Your task to perform on an android device: visit the assistant section in the google photos Image 0: 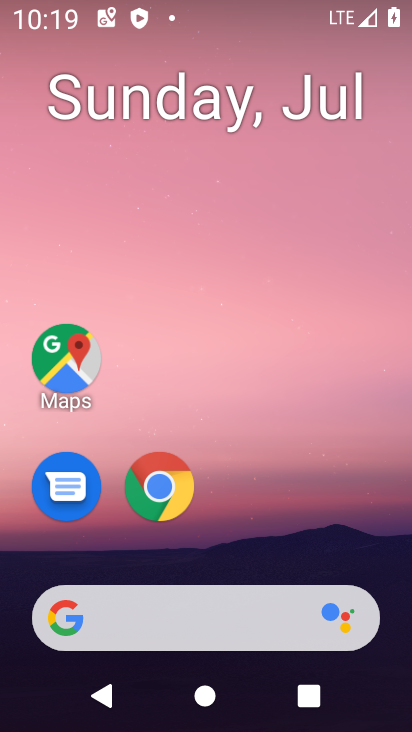
Step 0: press home button
Your task to perform on an android device: visit the assistant section in the google photos Image 1: 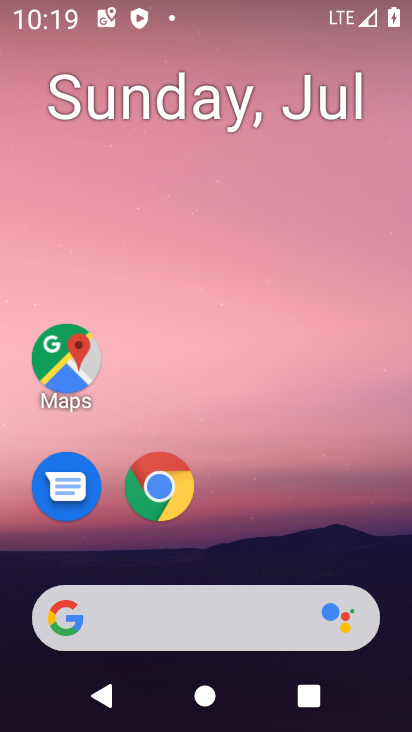
Step 1: drag from (359, 544) to (369, 84)
Your task to perform on an android device: visit the assistant section in the google photos Image 2: 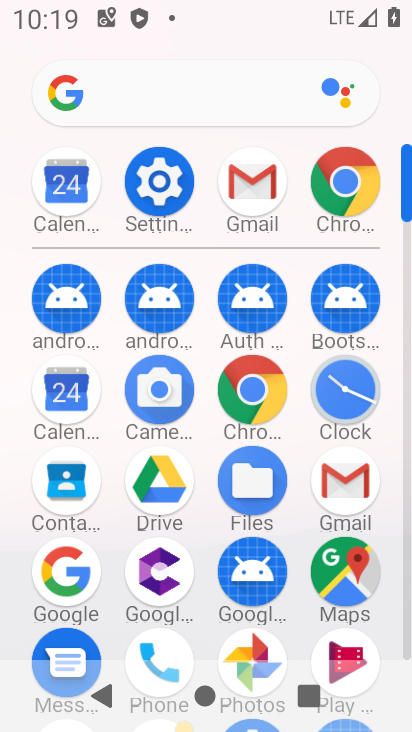
Step 2: drag from (404, 552) to (404, 417)
Your task to perform on an android device: visit the assistant section in the google photos Image 3: 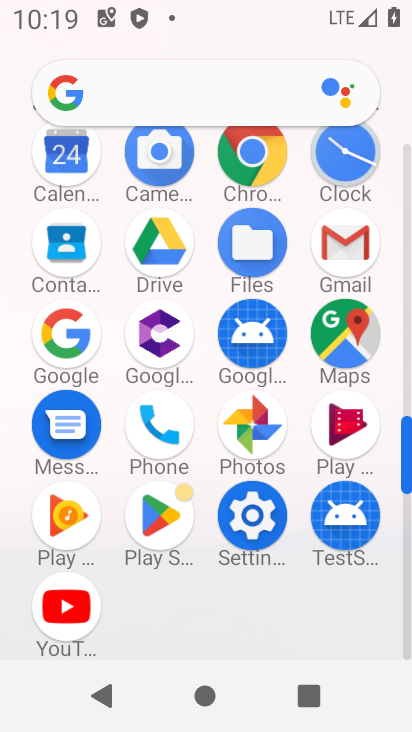
Step 3: click (255, 426)
Your task to perform on an android device: visit the assistant section in the google photos Image 4: 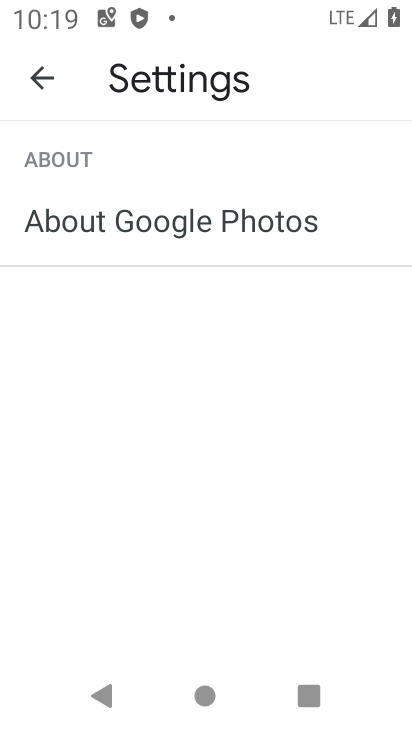
Step 4: press back button
Your task to perform on an android device: visit the assistant section in the google photos Image 5: 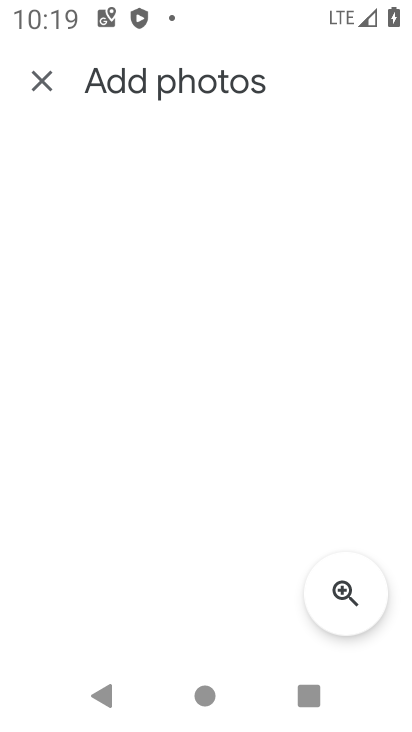
Step 5: press back button
Your task to perform on an android device: visit the assistant section in the google photos Image 6: 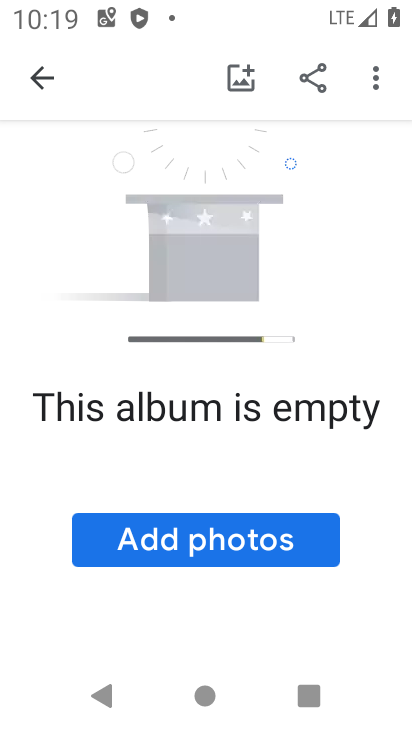
Step 6: press back button
Your task to perform on an android device: visit the assistant section in the google photos Image 7: 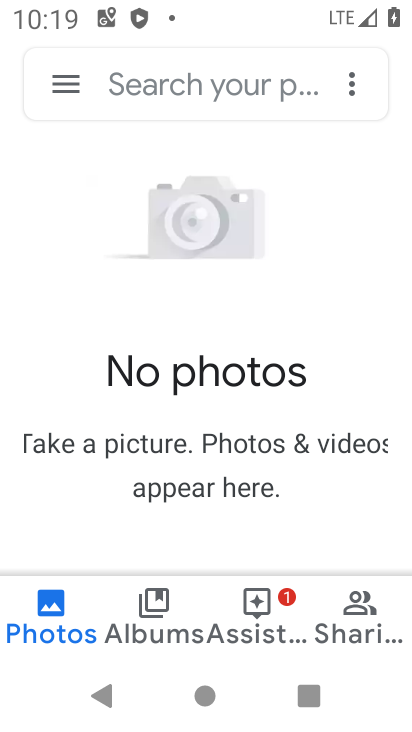
Step 7: click (256, 601)
Your task to perform on an android device: visit the assistant section in the google photos Image 8: 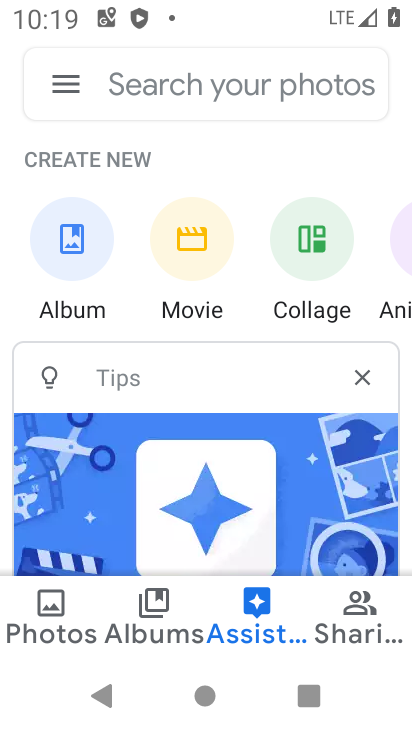
Step 8: task complete